Your task to perform on an android device: Go to ESPN.com Image 0: 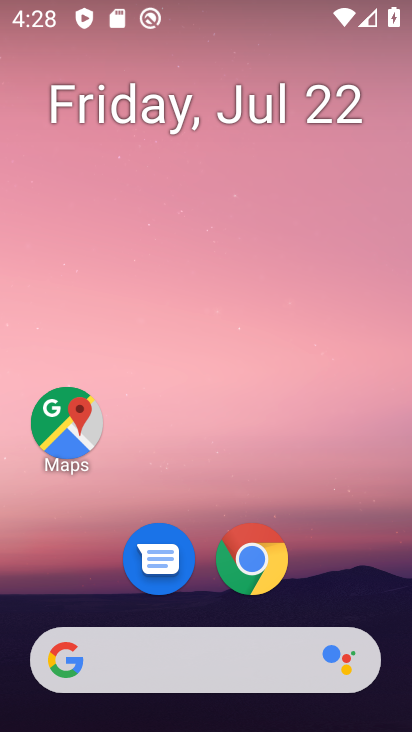
Step 0: click (254, 554)
Your task to perform on an android device: Go to ESPN.com Image 1: 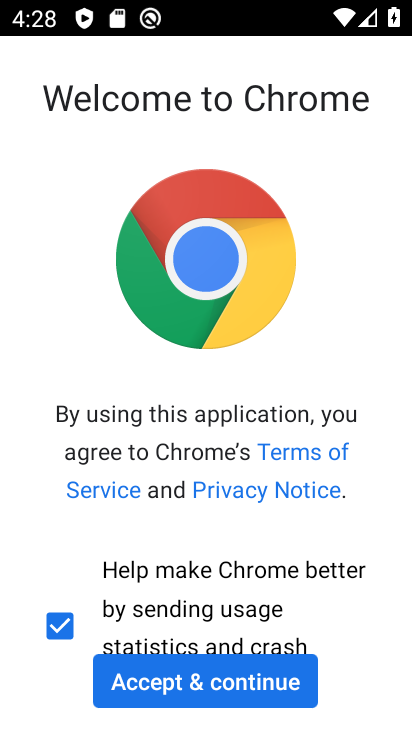
Step 1: click (181, 684)
Your task to perform on an android device: Go to ESPN.com Image 2: 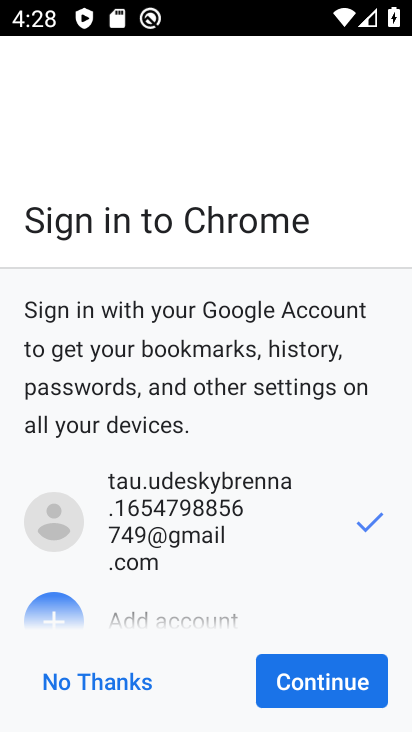
Step 2: click (311, 680)
Your task to perform on an android device: Go to ESPN.com Image 3: 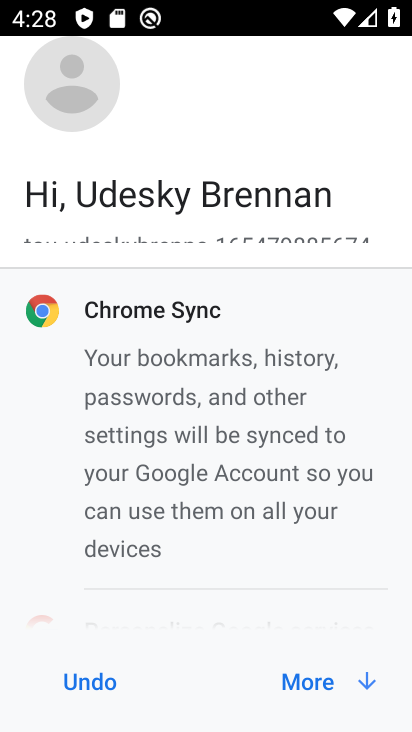
Step 3: click (311, 680)
Your task to perform on an android device: Go to ESPN.com Image 4: 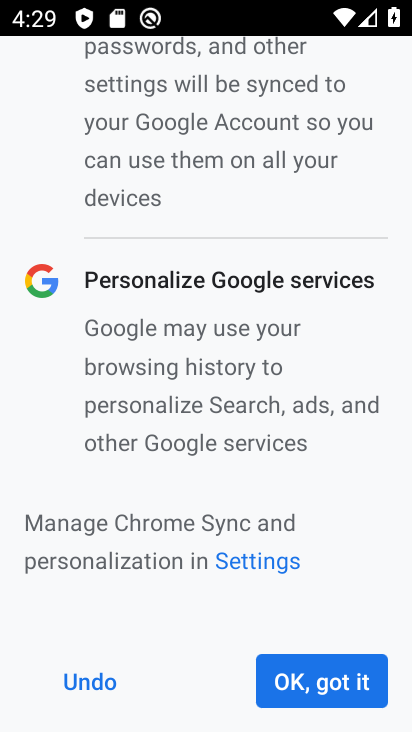
Step 4: click (324, 684)
Your task to perform on an android device: Go to ESPN.com Image 5: 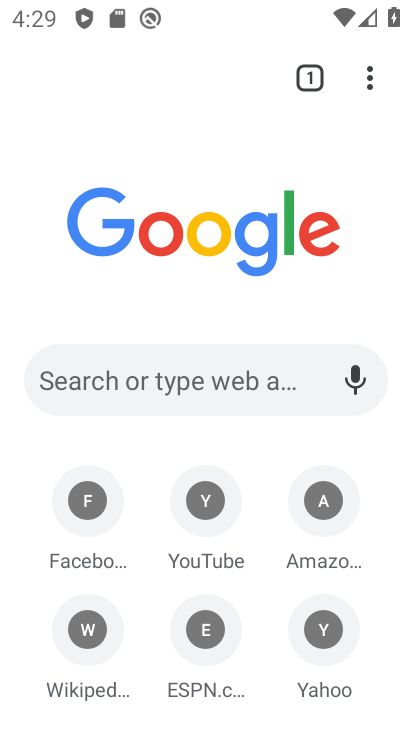
Step 5: click (206, 624)
Your task to perform on an android device: Go to ESPN.com Image 6: 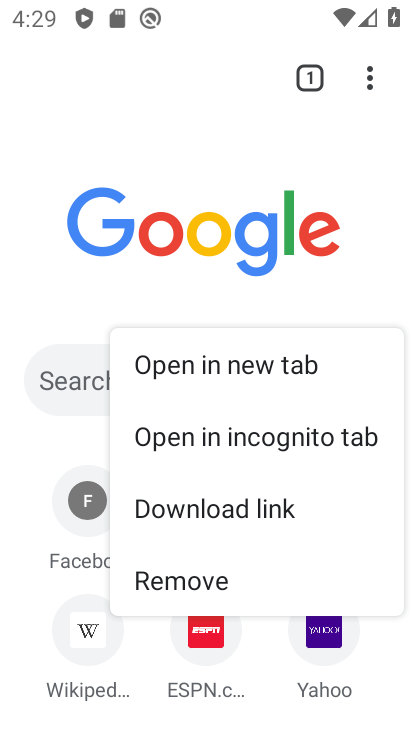
Step 6: click (214, 640)
Your task to perform on an android device: Go to ESPN.com Image 7: 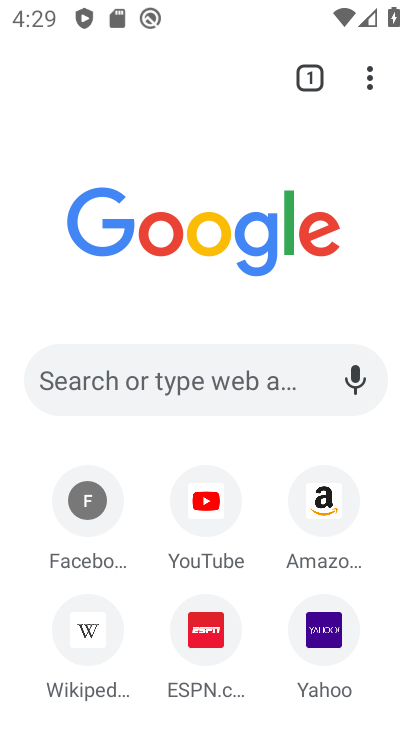
Step 7: click (200, 634)
Your task to perform on an android device: Go to ESPN.com Image 8: 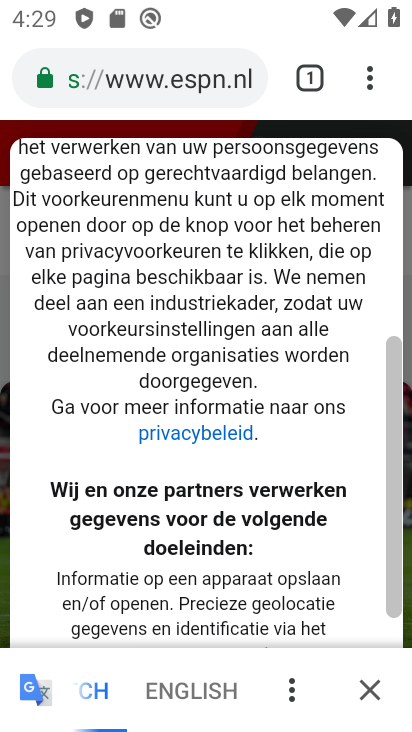
Step 8: task complete